Your task to perform on an android device: turn on improve location accuracy Image 0: 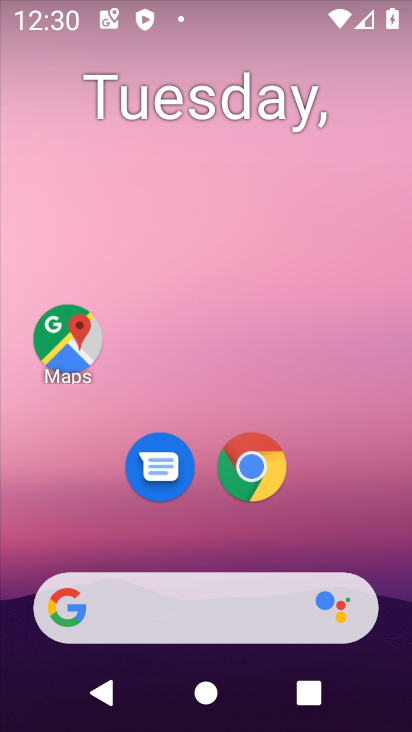
Step 0: drag from (365, 528) to (284, 13)
Your task to perform on an android device: turn on improve location accuracy Image 1: 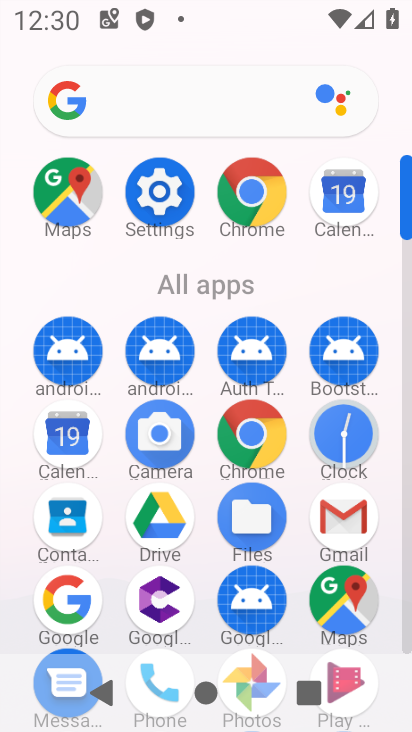
Step 1: drag from (8, 552) to (16, 284)
Your task to perform on an android device: turn on improve location accuracy Image 2: 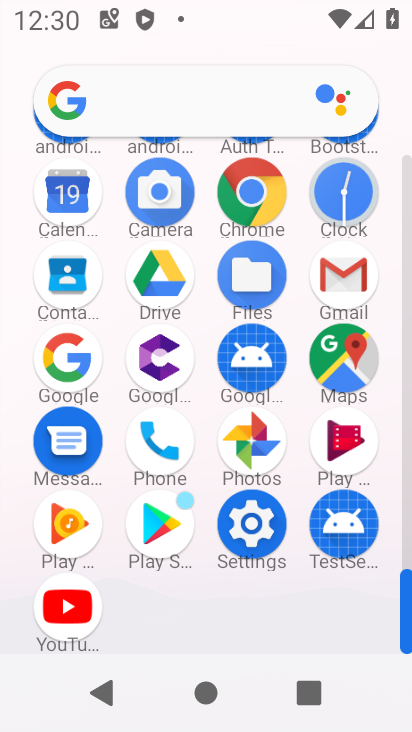
Step 2: click (252, 514)
Your task to perform on an android device: turn on improve location accuracy Image 3: 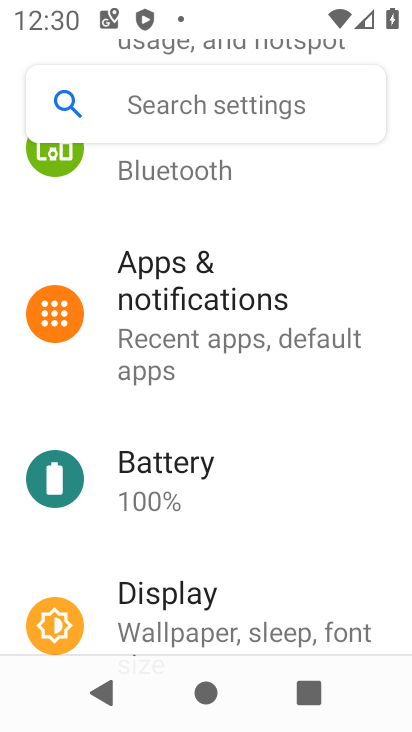
Step 3: drag from (252, 532) to (290, 204)
Your task to perform on an android device: turn on improve location accuracy Image 4: 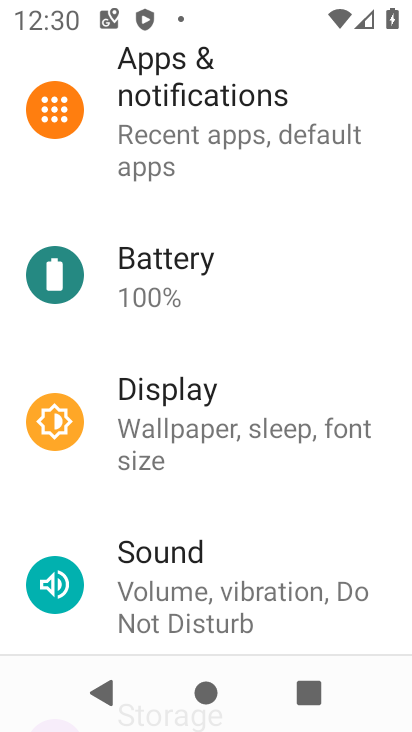
Step 4: drag from (204, 553) to (218, 163)
Your task to perform on an android device: turn on improve location accuracy Image 5: 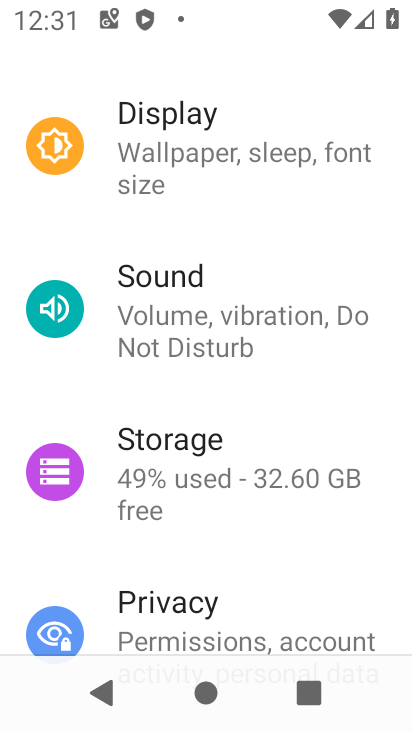
Step 5: drag from (199, 500) to (199, 162)
Your task to perform on an android device: turn on improve location accuracy Image 6: 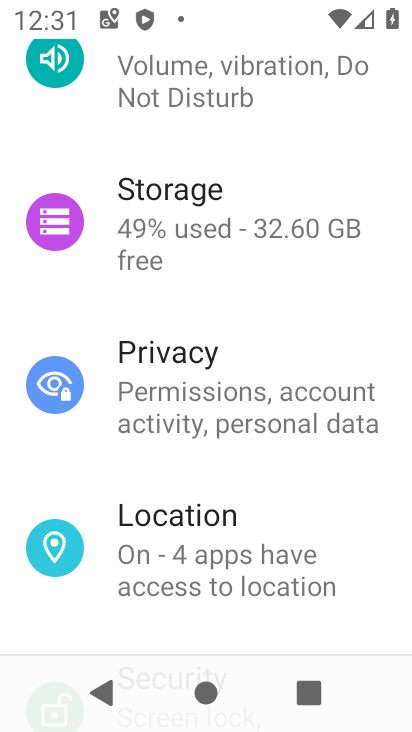
Step 6: drag from (216, 429) to (250, 158)
Your task to perform on an android device: turn on improve location accuracy Image 7: 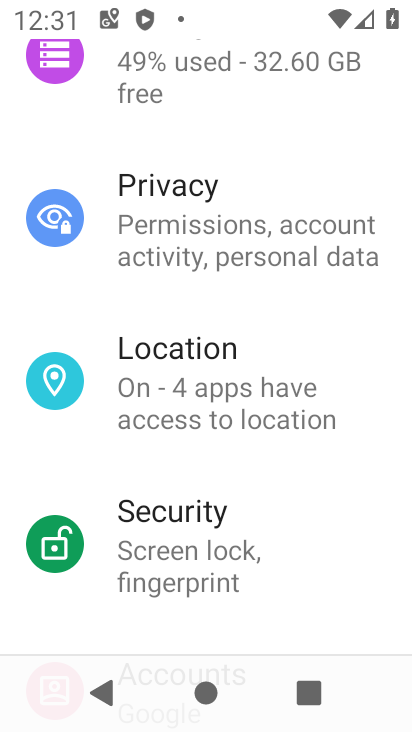
Step 7: click (202, 392)
Your task to perform on an android device: turn on improve location accuracy Image 8: 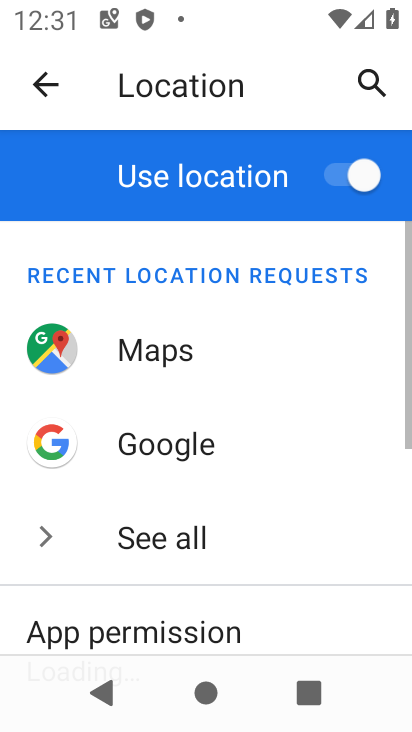
Step 8: drag from (250, 511) to (248, 171)
Your task to perform on an android device: turn on improve location accuracy Image 9: 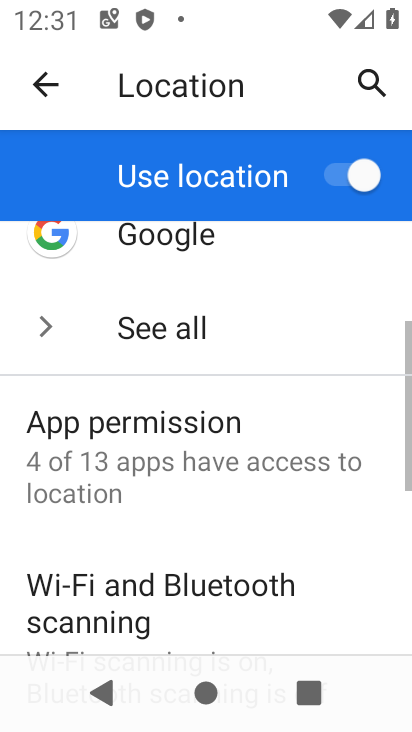
Step 9: drag from (239, 422) to (246, 191)
Your task to perform on an android device: turn on improve location accuracy Image 10: 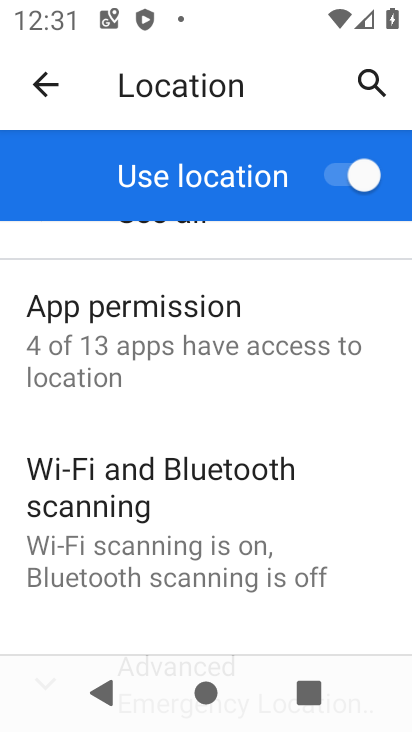
Step 10: drag from (235, 546) to (274, 157)
Your task to perform on an android device: turn on improve location accuracy Image 11: 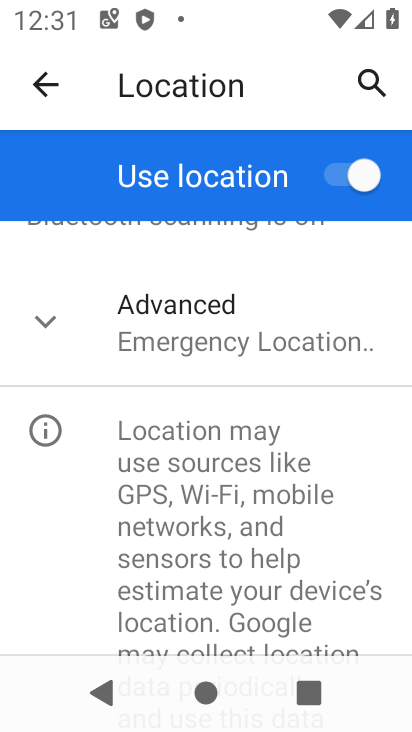
Step 11: click (202, 298)
Your task to perform on an android device: turn on improve location accuracy Image 12: 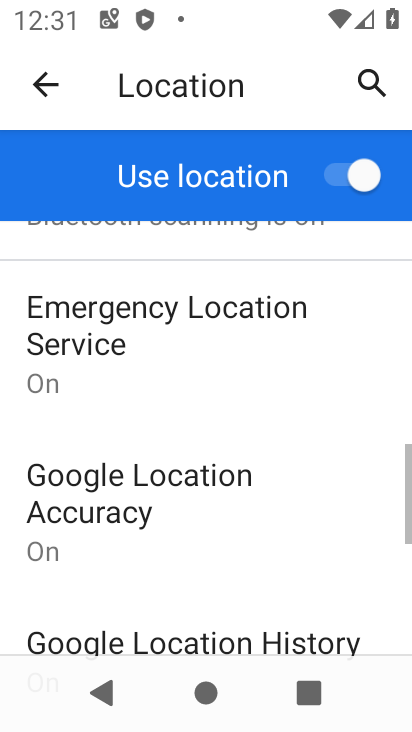
Step 12: drag from (204, 560) to (220, 245)
Your task to perform on an android device: turn on improve location accuracy Image 13: 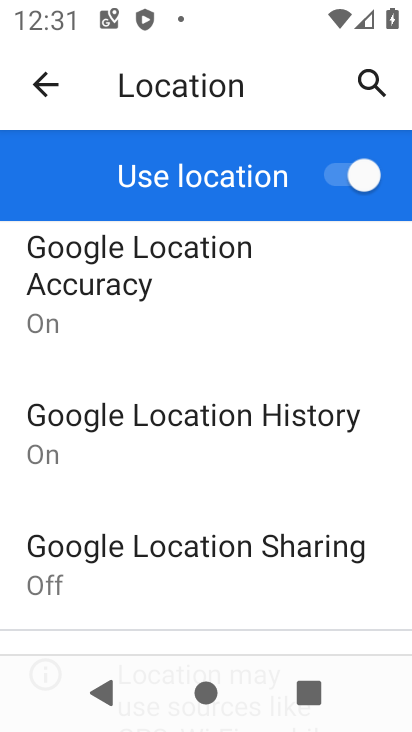
Step 13: click (190, 257)
Your task to perform on an android device: turn on improve location accuracy Image 14: 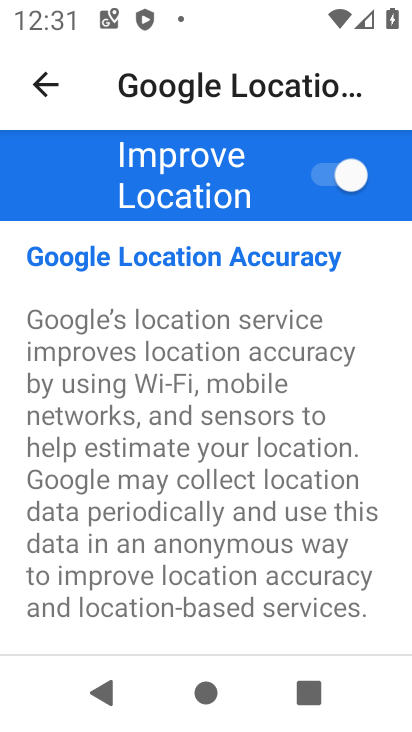
Step 14: task complete